Your task to perform on an android device: turn on notifications settings in the gmail app Image 0: 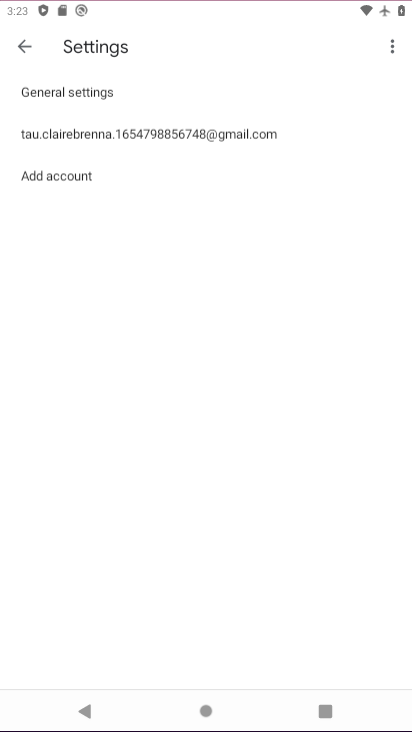
Step 0: press home button
Your task to perform on an android device: turn on notifications settings in the gmail app Image 1: 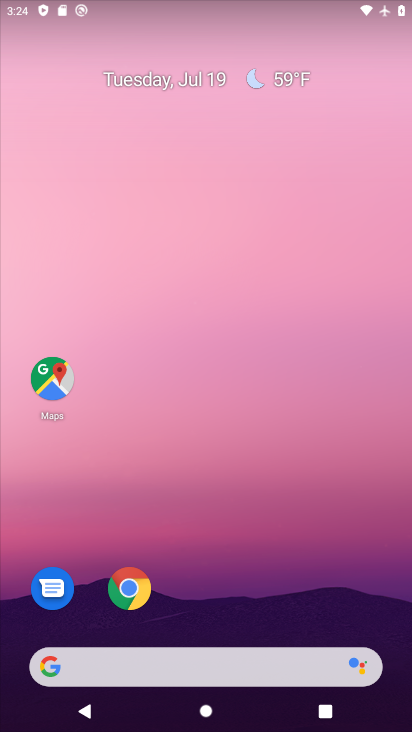
Step 1: drag from (272, 599) to (92, 1)
Your task to perform on an android device: turn on notifications settings in the gmail app Image 2: 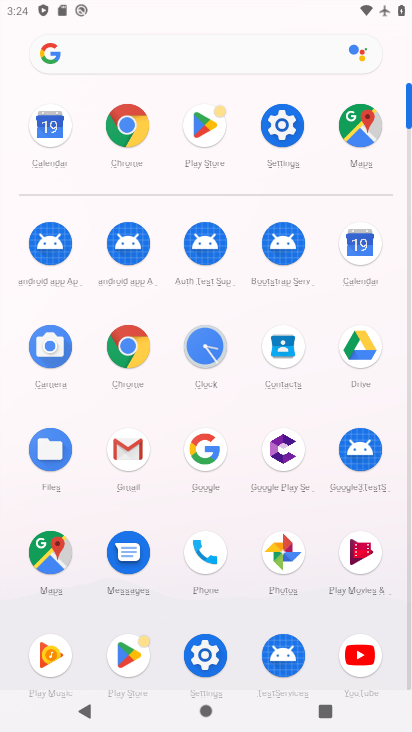
Step 2: click (137, 455)
Your task to perform on an android device: turn on notifications settings in the gmail app Image 3: 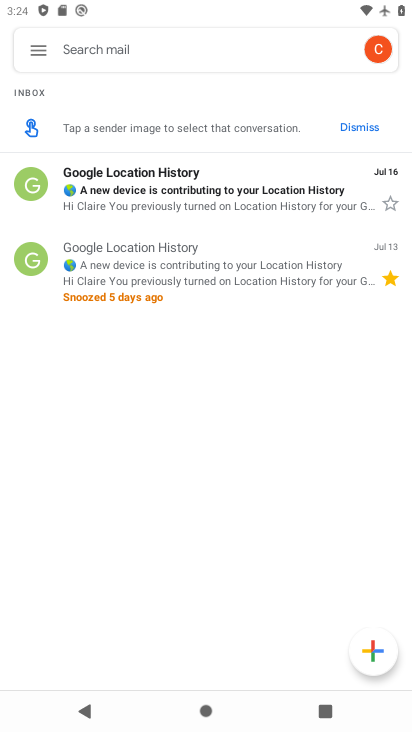
Step 3: click (39, 53)
Your task to perform on an android device: turn on notifications settings in the gmail app Image 4: 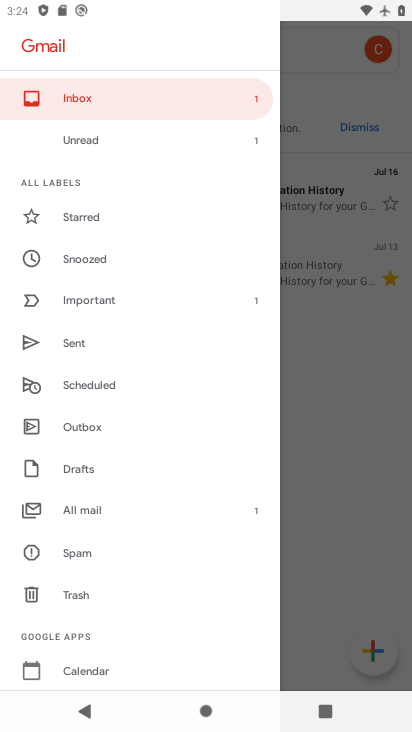
Step 4: drag from (212, 570) to (135, 130)
Your task to perform on an android device: turn on notifications settings in the gmail app Image 5: 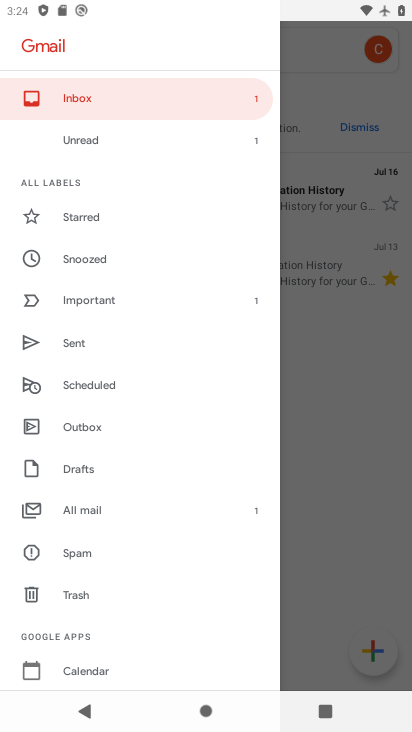
Step 5: drag from (194, 606) to (101, 41)
Your task to perform on an android device: turn on notifications settings in the gmail app Image 6: 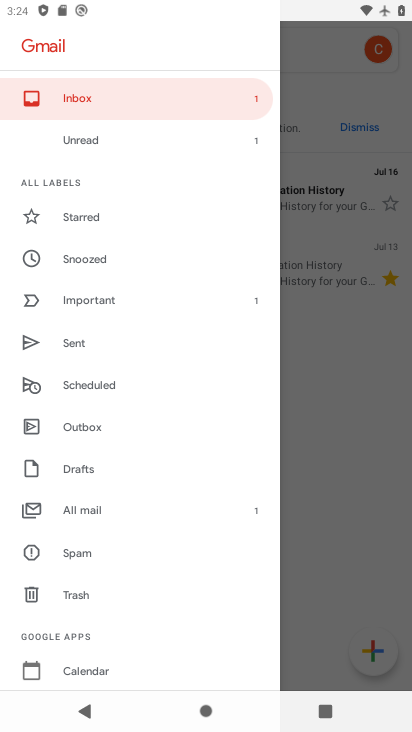
Step 6: drag from (112, 536) to (260, 2)
Your task to perform on an android device: turn on notifications settings in the gmail app Image 7: 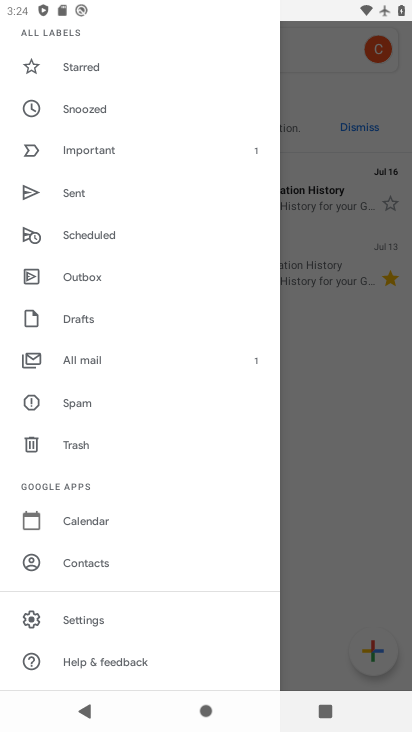
Step 7: click (96, 620)
Your task to perform on an android device: turn on notifications settings in the gmail app Image 8: 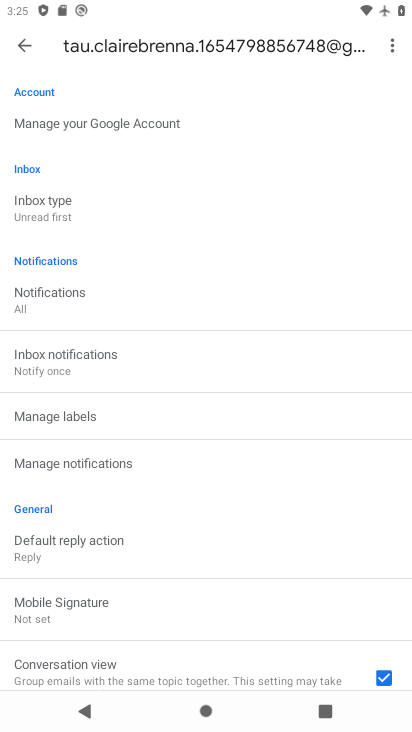
Step 8: click (68, 468)
Your task to perform on an android device: turn on notifications settings in the gmail app Image 9: 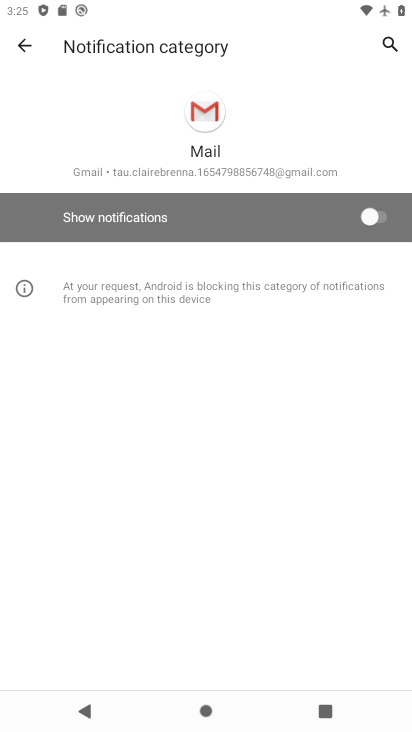
Step 9: click (364, 212)
Your task to perform on an android device: turn on notifications settings in the gmail app Image 10: 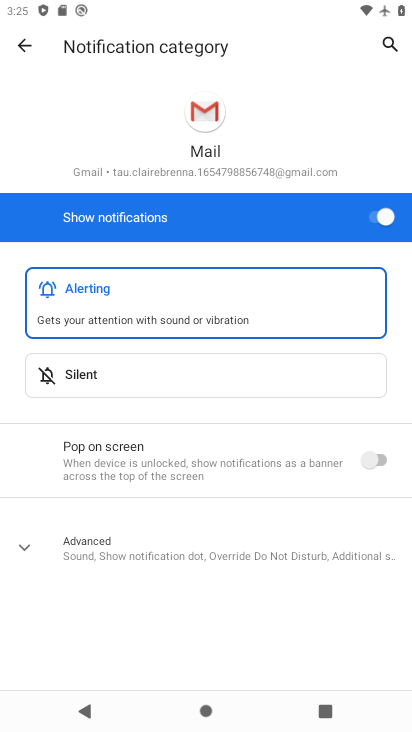
Step 10: task complete